Your task to perform on an android device: turn off data saver in the chrome app Image 0: 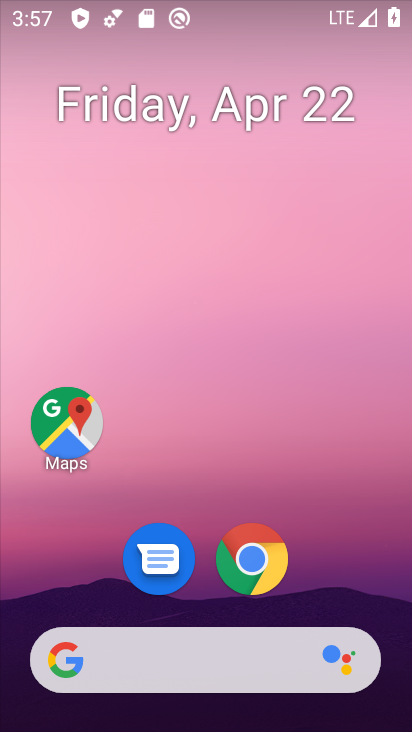
Step 0: click (251, 551)
Your task to perform on an android device: turn off data saver in the chrome app Image 1: 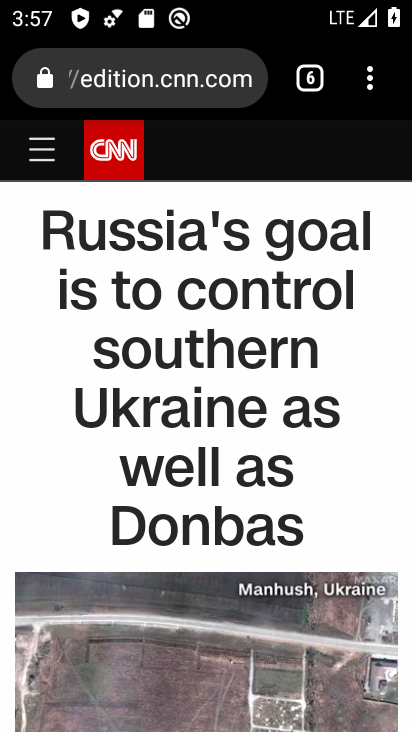
Step 1: click (371, 84)
Your task to perform on an android device: turn off data saver in the chrome app Image 2: 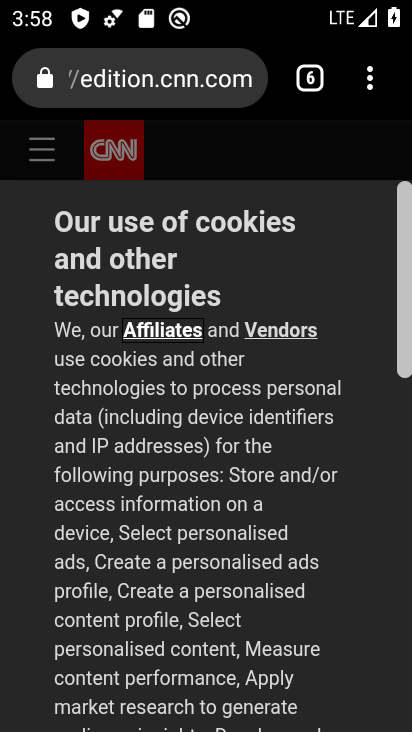
Step 2: click (370, 79)
Your task to perform on an android device: turn off data saver in the chrome app Image 3: 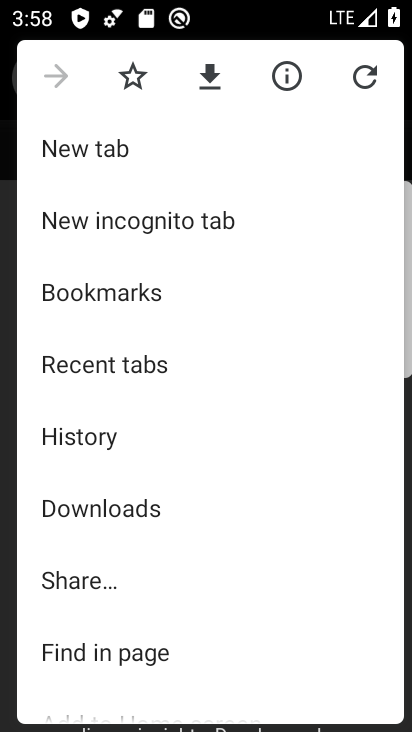
Step 3: drag from (161, 688) to (174, 126)
Your task to perform on an android device: turn off data saver in the chrome app Image 4: 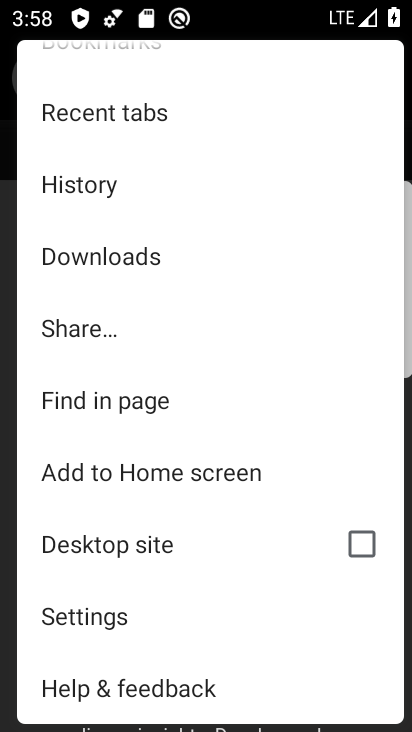
Step 4: click (104, 619)
Your task to perform on an android device: turn off data saver in the chrome app Image 5: 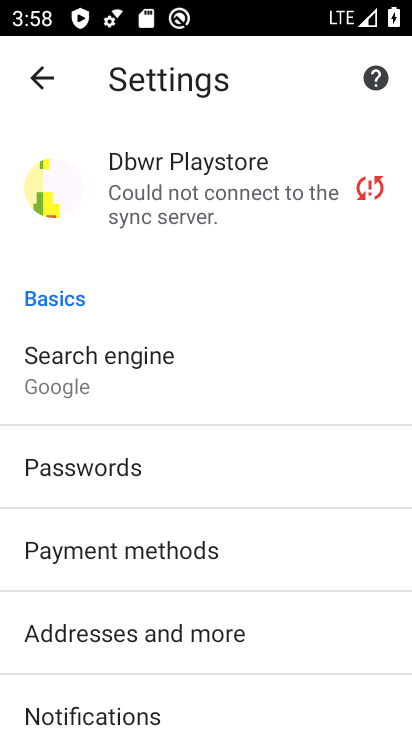
Step 5: drag from (175, 691) to (179, 167)
Your task to perform on an android device: turn off data saver in the chrome app Image 6: 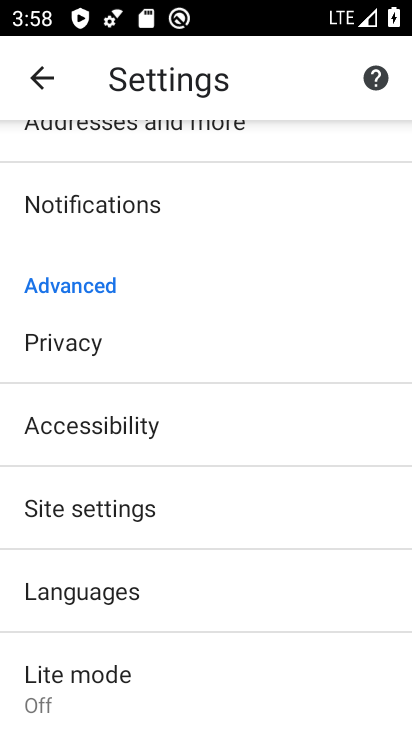
Step 6: click (109, 679)
Your task to perform on an android device: turn off data saver in the chrome app Image 7: 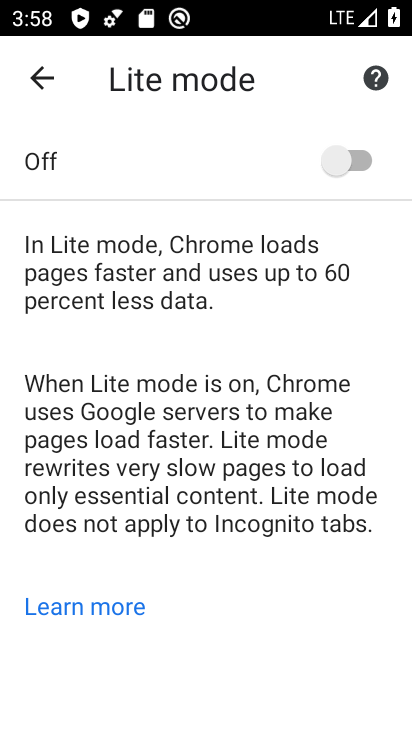
Step 7: task complete